Your task to perform on an android device: Go to location settings Image 0: 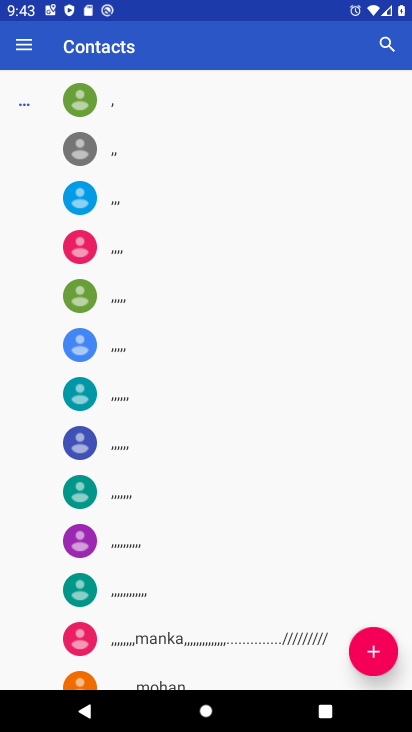
Step 0: press home button
Your task to perform on an android device: Go to location settings Image 1: 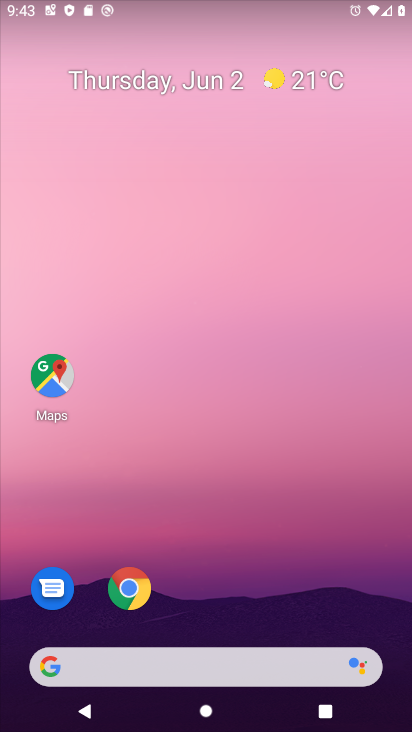
Step 1: drag from (223, 659) to (303, 235)
Your task to perform on an android device: Go to location settings Image 2: 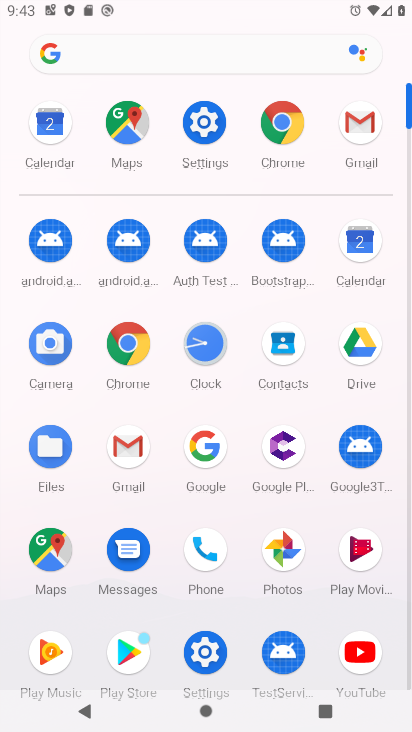
Step 2: click (206, 119)
Your task to perform on an android device: Go to location settings Image 3: 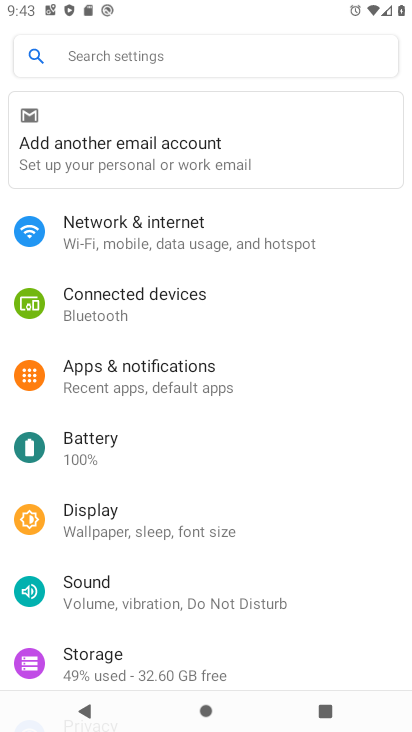
Step 3: drag from (207, 580) to (226, 347)
Your task to perform on an android device: Go to location settings Image 4: 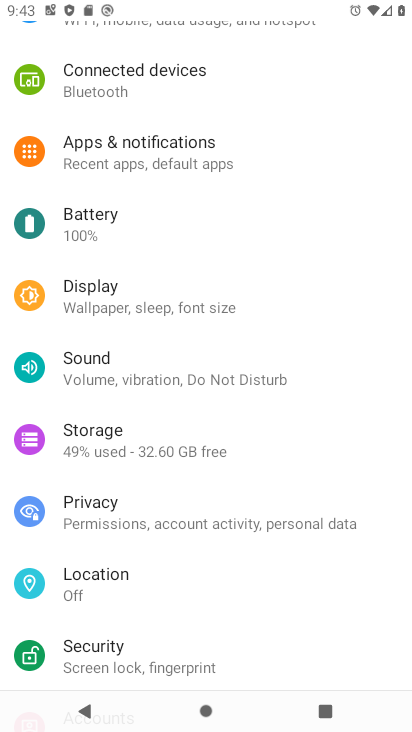
Step 4: click (182, 567)
Your task to perform on an android device: Go to location settings Image 5: 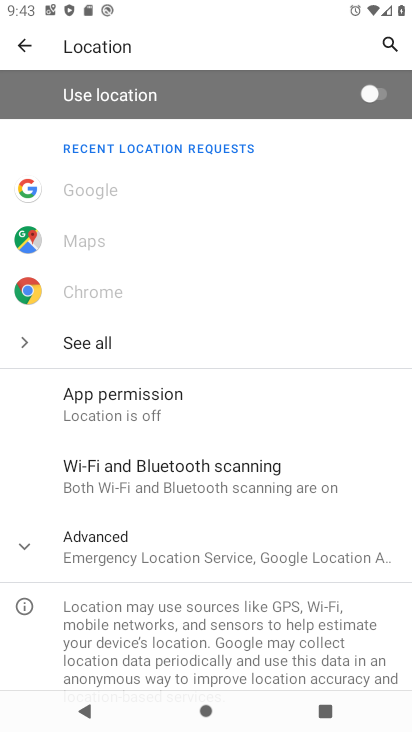
Step 5: task complete